Your task to perform on an android device: delete the emails in spam in the gmail app Image 0: 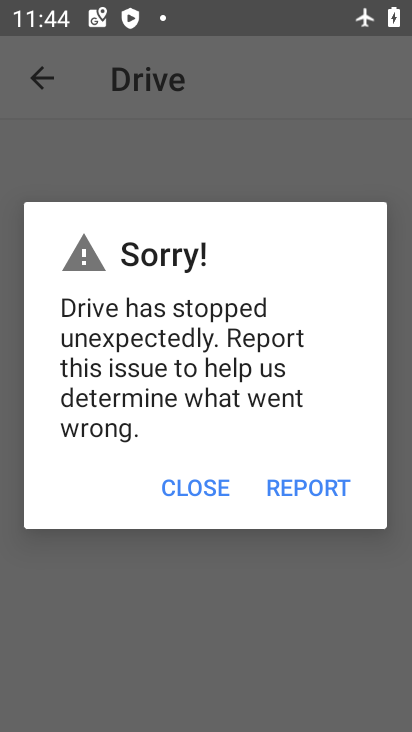
Step 0: press home button
Your task to perform on an android device: delete the emails in spam in the gmail app Image 1: 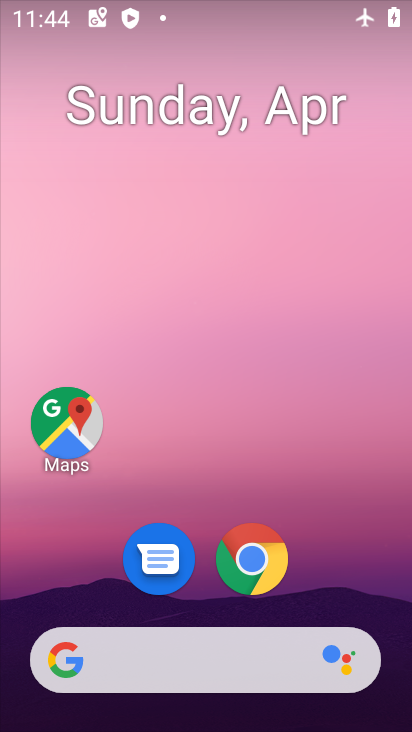
Step 1: drag from (348, 599) to (310, 51)
Your task to perform on an android device: delete the emails in spam in the gmail app Image 2: 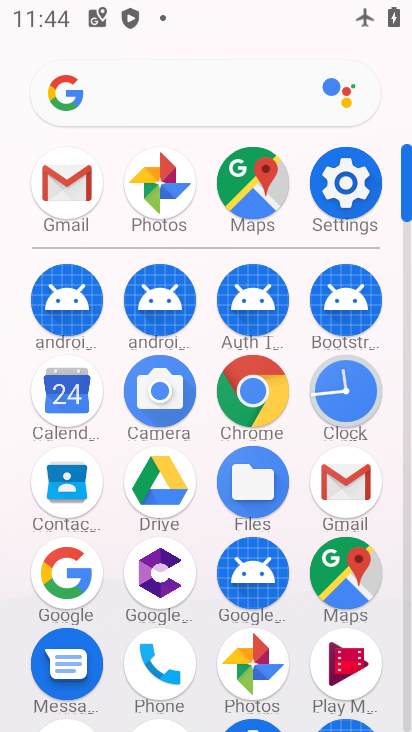
Step 2: click (47, 178)
Your task to perform on an android device: delete the emails in spam in the gmail app Image 3: 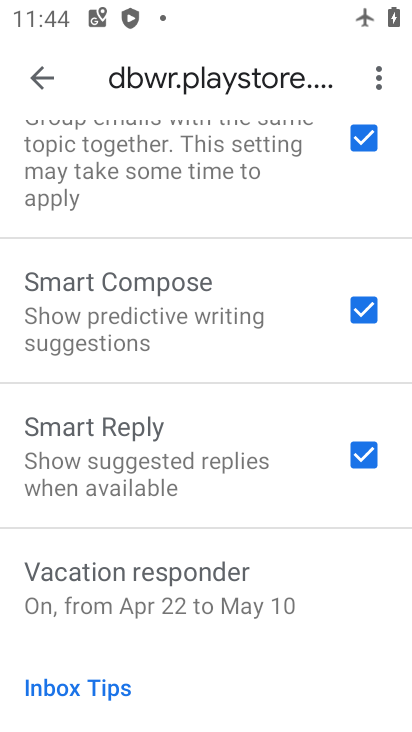
Step 3: click (33, 92)
Your task to perform on an android device: delete the emails in spam in the gmail app Image 4: 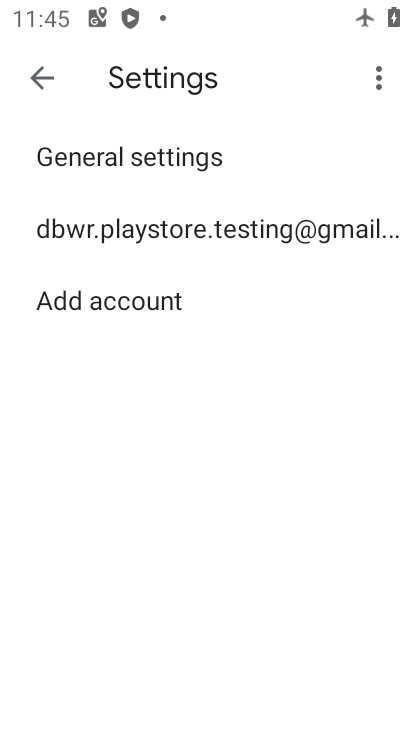
Step 4: click (34, 90)
Your task to perform on an android device: delete the emails in spam in the gmail app Image 5: 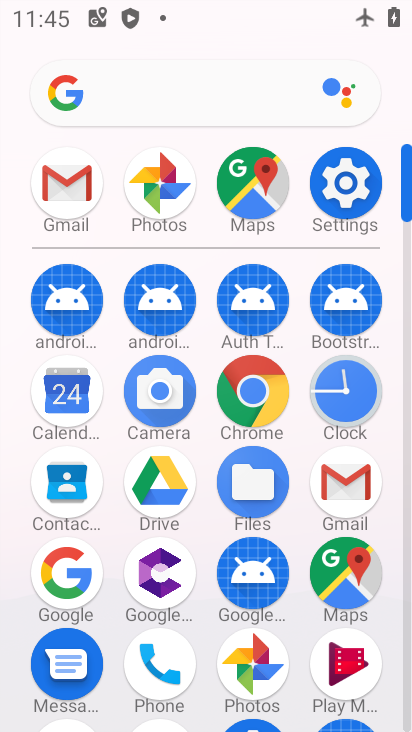
Step 5: click (68, 170)
Your task to perform on an android device: delete the emails in spam in the gmail app Image 6: 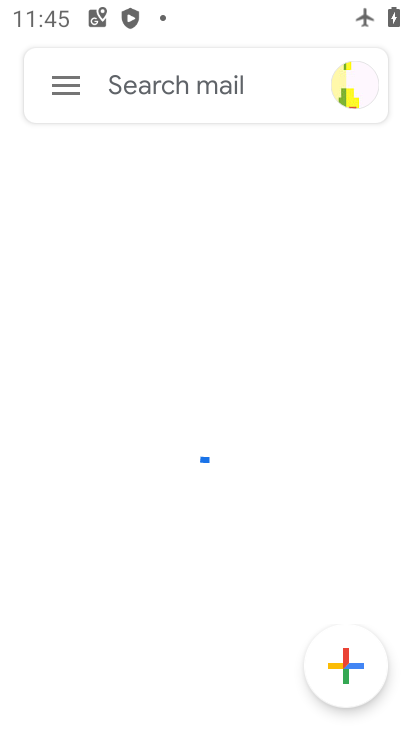
Step 6: click (69, 90)
Your task to perform on an android device: delete the emails in spam in the gmail app Image 7: 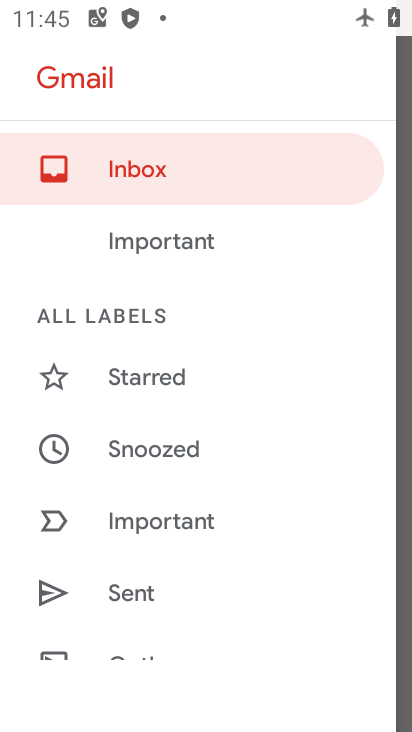
Step 7: drag from (260, 602) to (266, 389)
Your task to perform on an android device: delete the emails in spam in the gmail app Image 8: 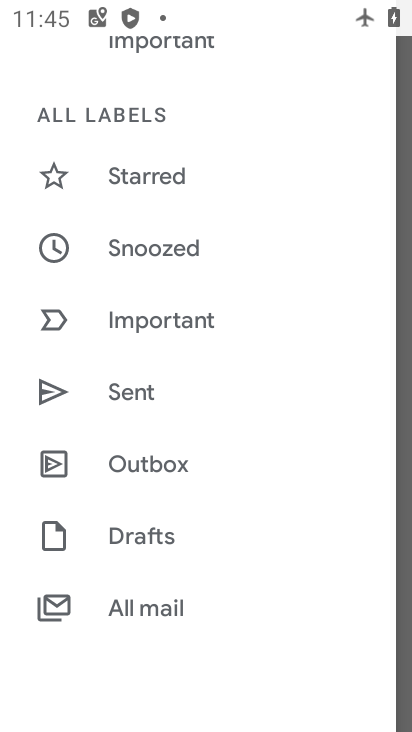
Step 8: drag from (231, 594) to (246, 429)
Your task to perform on an android device: delete the emails in spam in the gmail app Image 9: 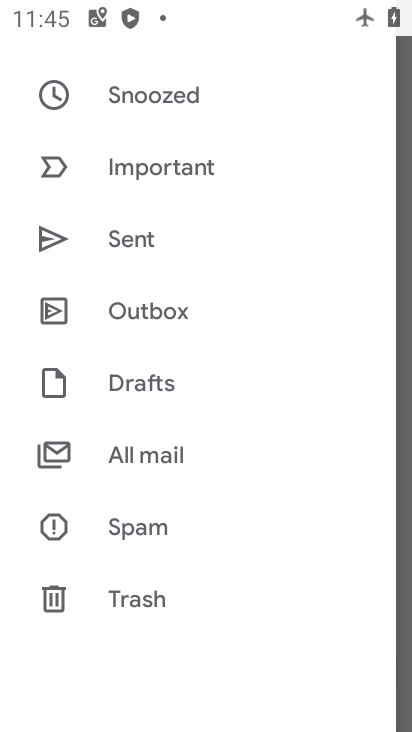
Step 9: click (247, 528)
Your task to perform on an android device: delete the emails in spam in the gmail app Image 10: 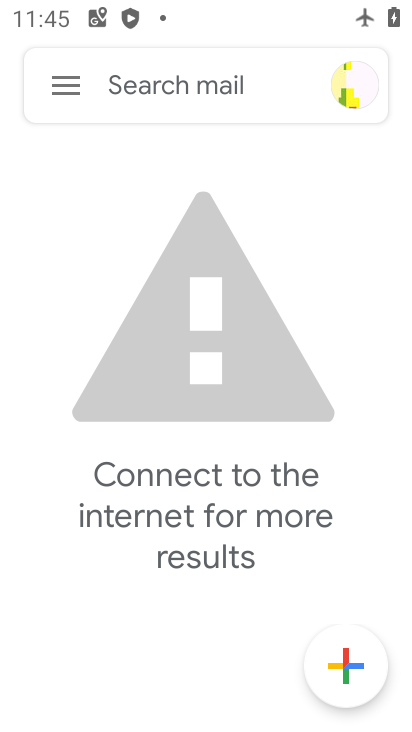
Step 10: task complete